Your task to perform on an android device: toggle sleep mode Image 0: 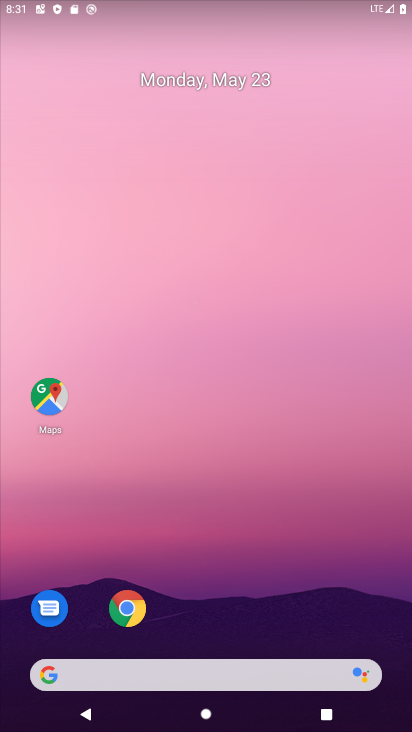
Step 0: drag from (196, 682) to (155, 32)
Your task to perform on an android device: toggle sleep mode Image 1: 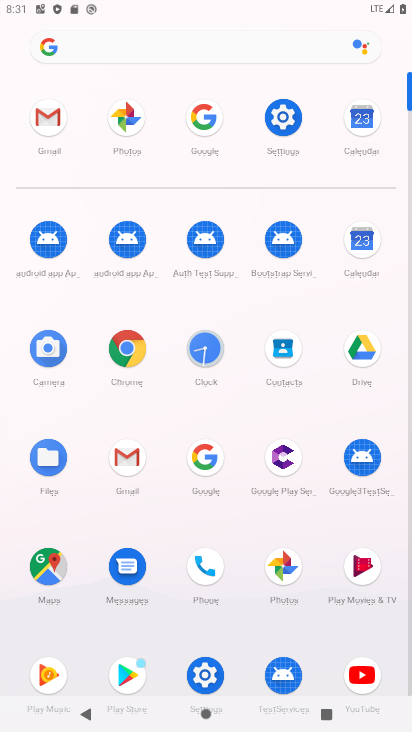
Step 1: click (293, 124)
Your task to perform on an android device: toggle sleep mode Image 2: 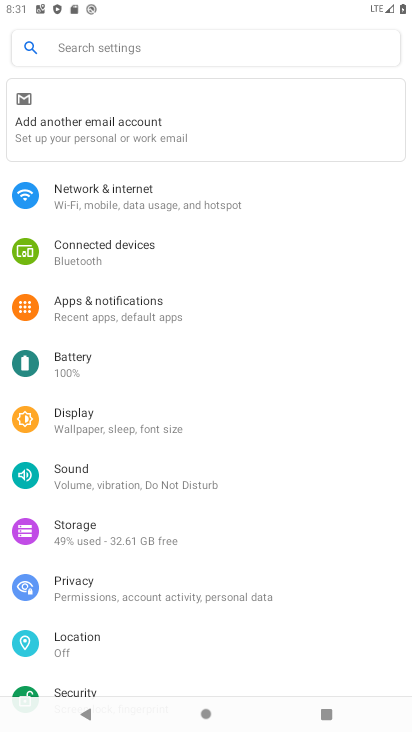
Step 2: click (99, 409)
Your task to perform on an android device: toggle sleep mode Image 3: 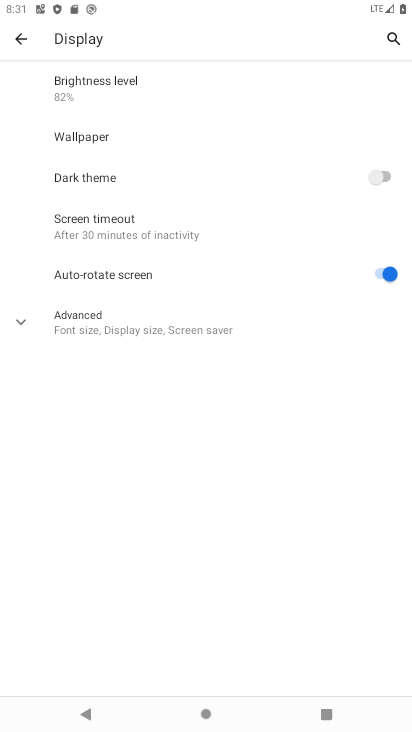
Step 3: click (79, 321)
Your task to perform on an android device: toggle sleep mode Image 4: 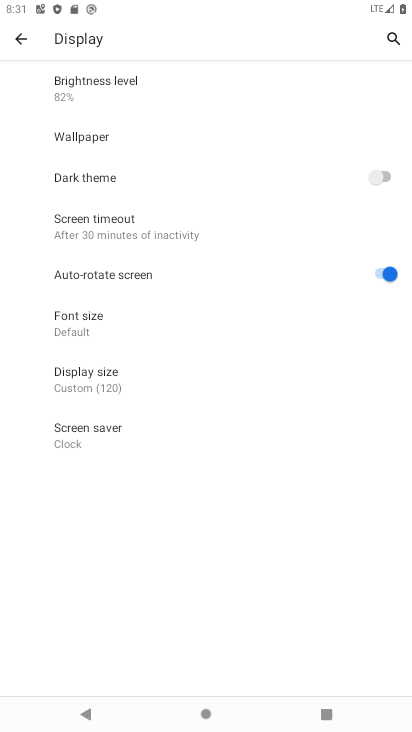
Step 4: task complete